Your task to perform on an android device: turn off data saver in the chrome app Image 0: 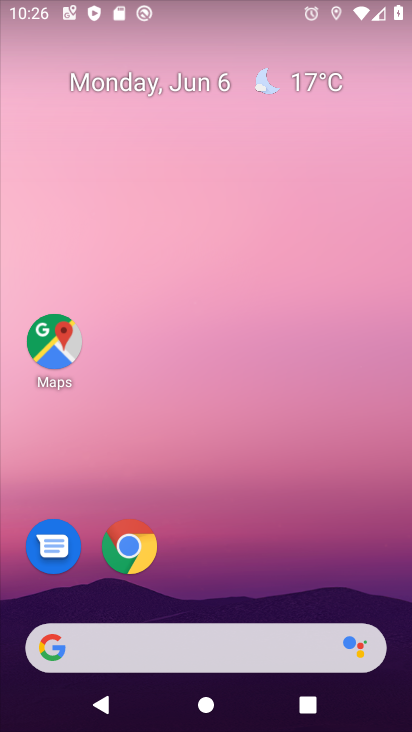
Step 0: click (137, 564)
Your task to perform on an android device: turn off data saver in the chrome app Image 1: 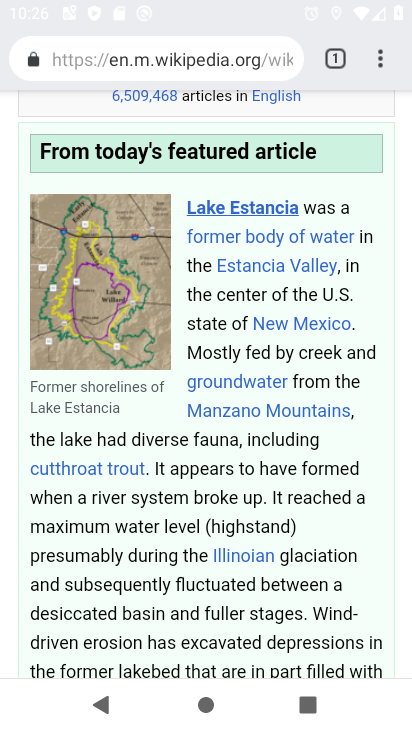
Step 1: click (379, 52)
Your task to perform on an android device: turn off data saver in the chrome app Image 2: 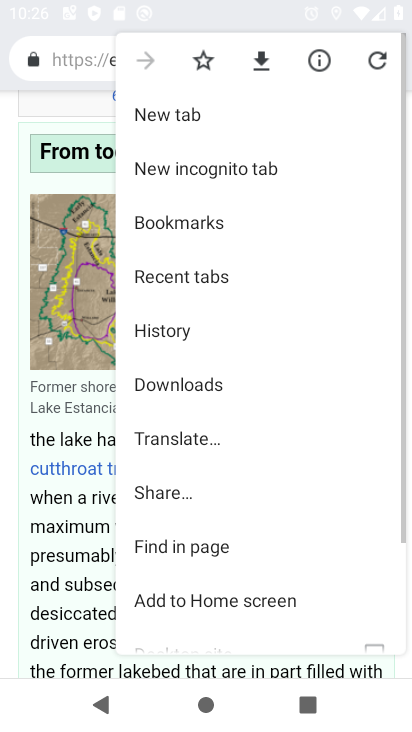
Step 2: drag from (180, 594) to (249, 136)
Your task to perform on an android device: turn off data saver in the chrome app Image 3: 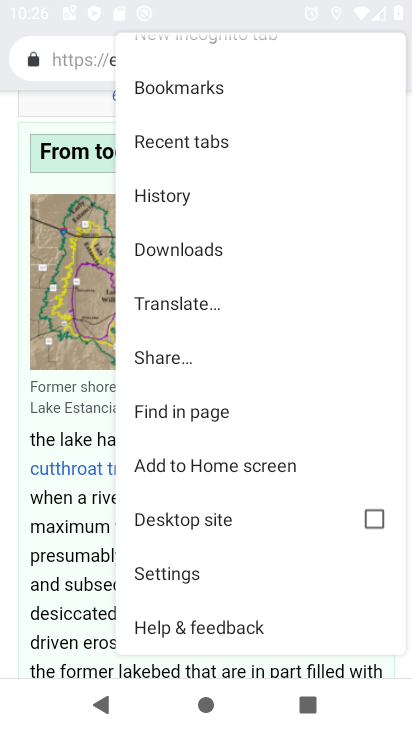
Step 3: click (162, 567)
Your task to perform on an android device: turn off data saver in the chrome app Image 4: 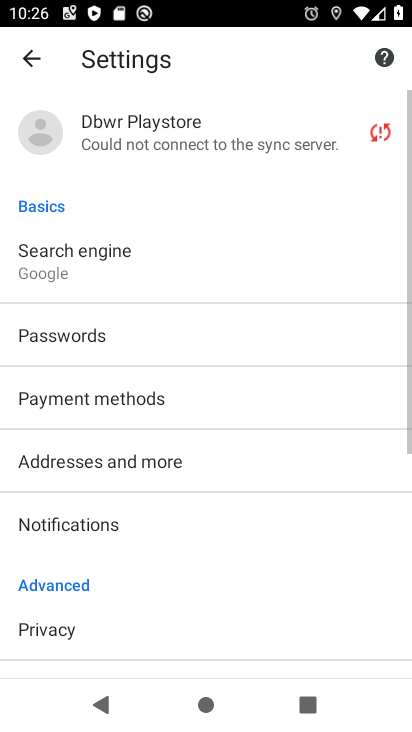
Step 4: drag from (146, 523) to (202, 104)
Your task to perform on an android device: turn off data saver in the chrome app Image 5: 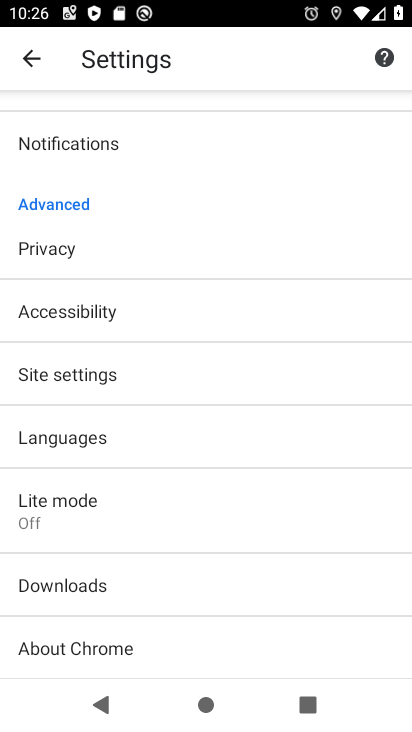
Step 5: click (79, 523)
Your task to perform on an android device: turn off data saver in the chrome app Image 6: 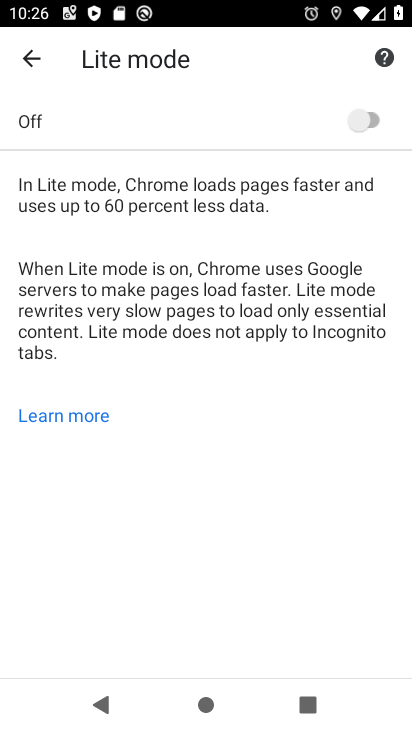
Step 6: task complete